Your task to perform on an android device: change the clock display to digital Image 0: 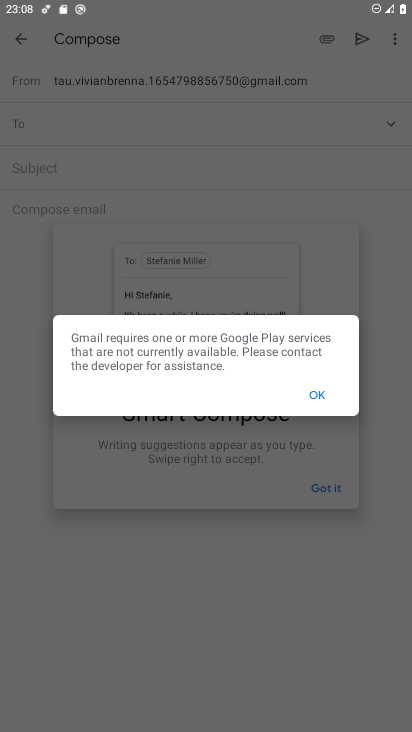
Step 0: press home button
Your task to perform on an android device: change the clock display to digital Image 1: 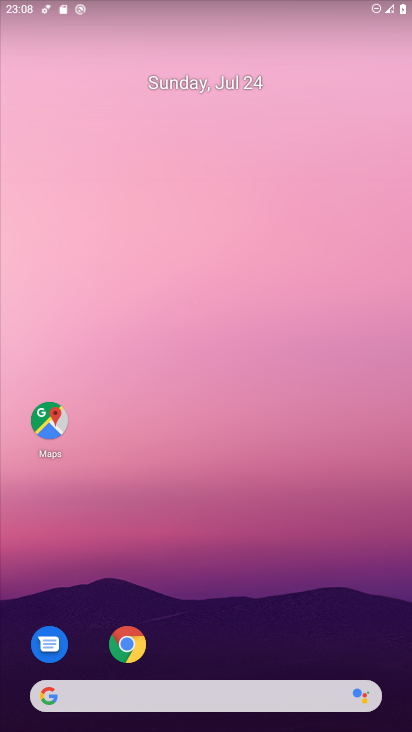
Step 1: drag from (312, 616) to (327, 222)
Your task to perform on an android device: change the clock display to digital Image 2: 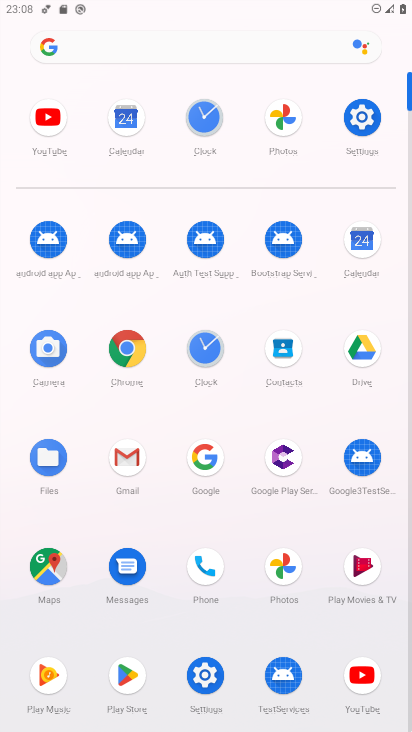
Step 2: click (203, 347)
Your task to perform on an android device: change the clock display to digital Image 3: 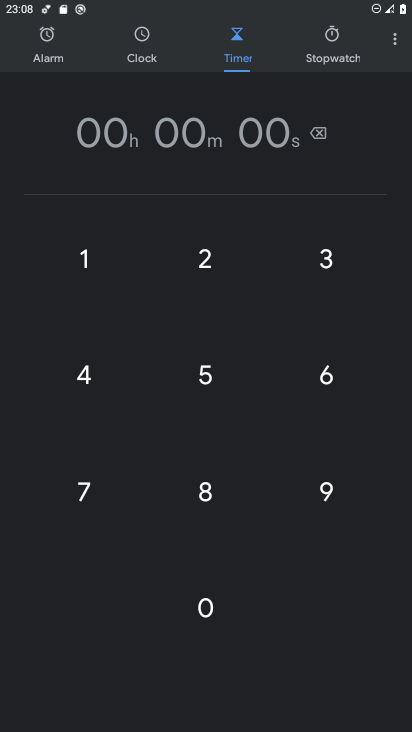
Step 3: click (394, 48)
Your task to perform on an android device: change the clock display to digital Image 4: 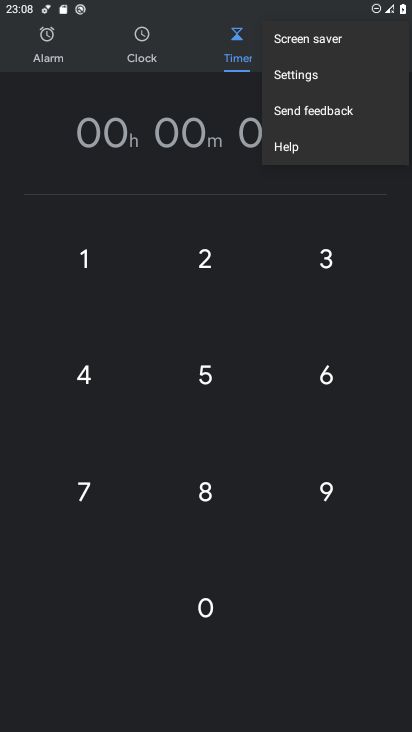
Step 4: click (283, 77)
Your task to perform on an android device: change the clock display to digital Image 5: 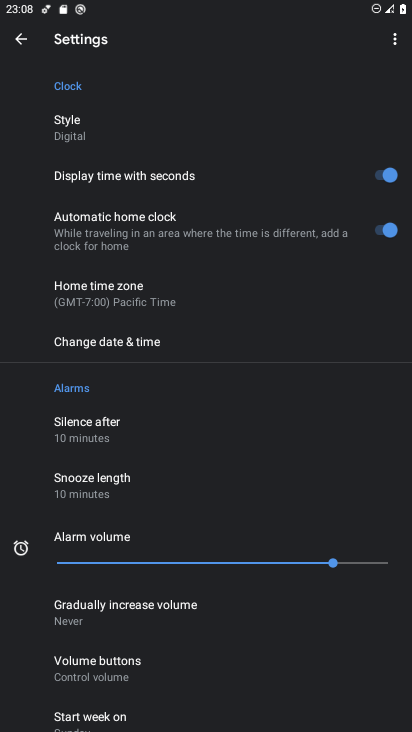
Step 5: task complete